Your task to perform on an android device: Open calendar and show me the fourth week of next month Image 0: 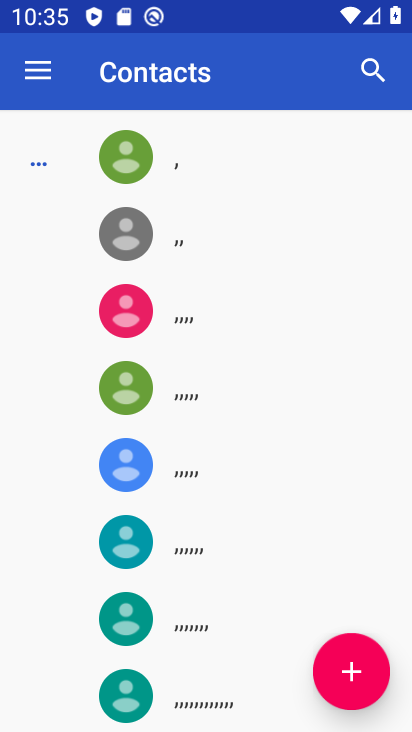
Step 0: press home button
Your task to perform on an android device: Open calendar and show me the fourth week of next month Image 1: 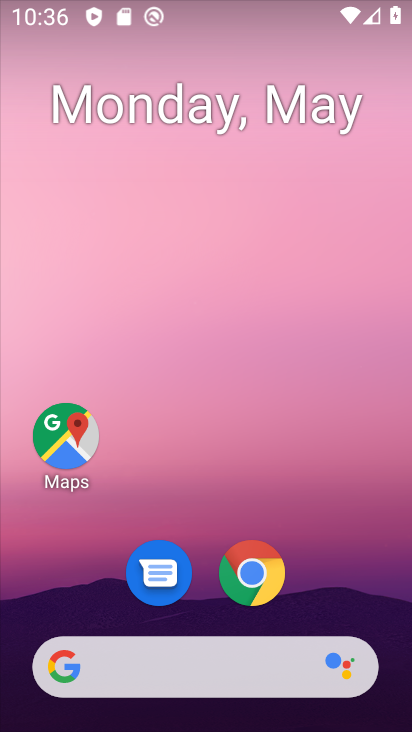
Step 1: drag from (331, 572) to (240, 97)
Your task to perform on an android device: Open calendar and show me the fourth week of next month Image 2: 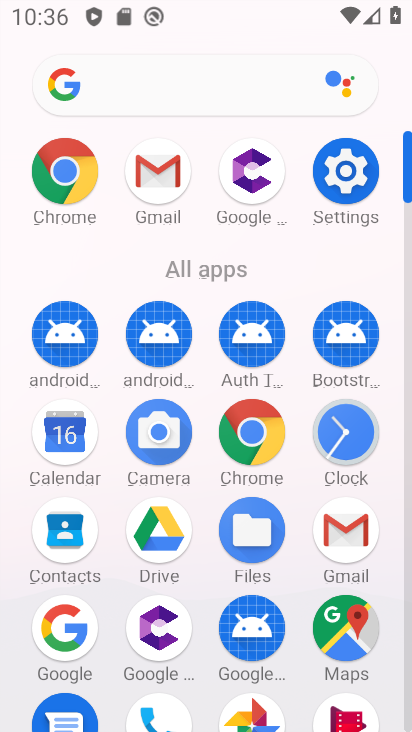
Step 2: click (70, 432)
Your task to perform on an android device: Open calendar and show me the fourth week of next month Image 3: 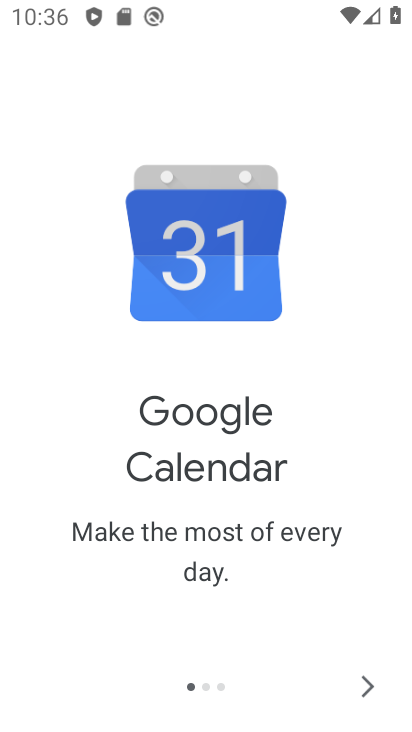
Step 3: click (371, 686)
Your task to perform on an android device: Open calendar and show me the fourth week of next month Image 4: 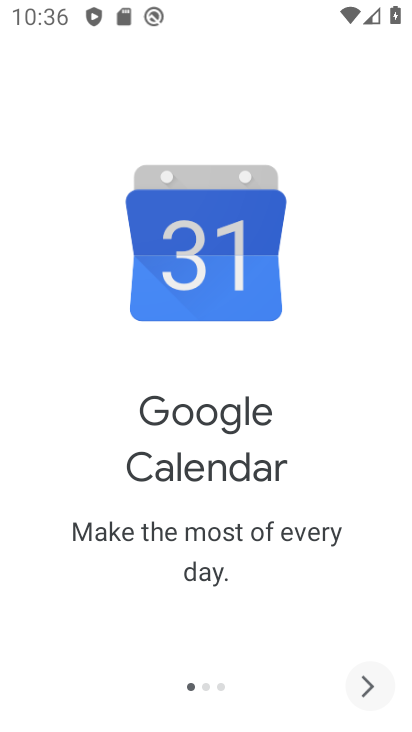
Step 4: click (369, 686)
Your task to perform on an android device: Open calendar and show me the fourth week of next month Image 5: 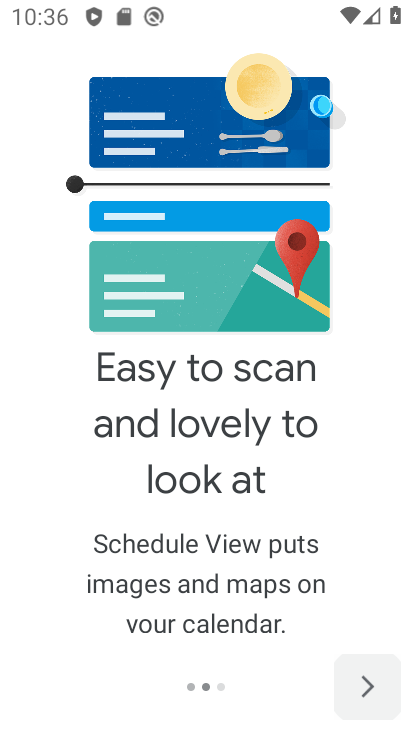
Step 5: click (369, 686)
Your task to perform on an android device: Open calendar and show me the fourth week of next month Image 6: 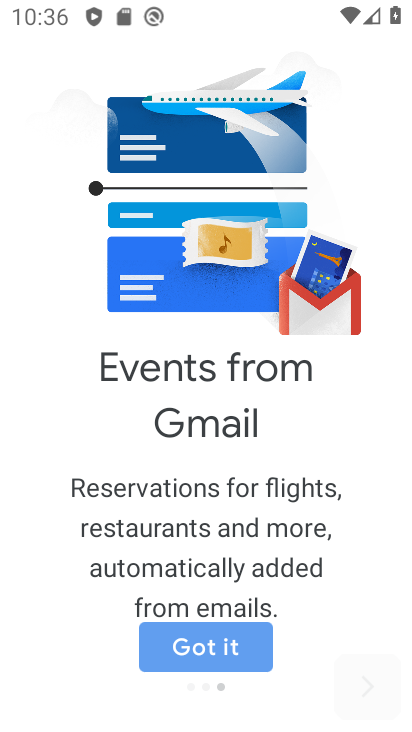
Step 6: click (369, 686)
Your task to perform on an android device: Open calendar and show me the fourth week of next month Image 7: 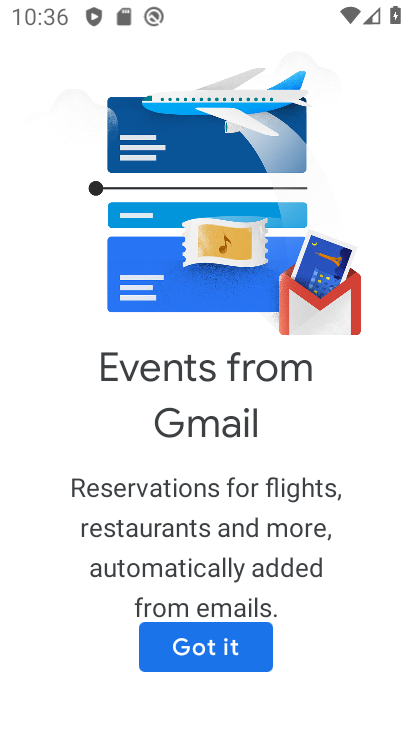
Step 7: click (218, 658)
Your task to perform on an android device: Open calendar and show me the fourth week of next month Image 8: 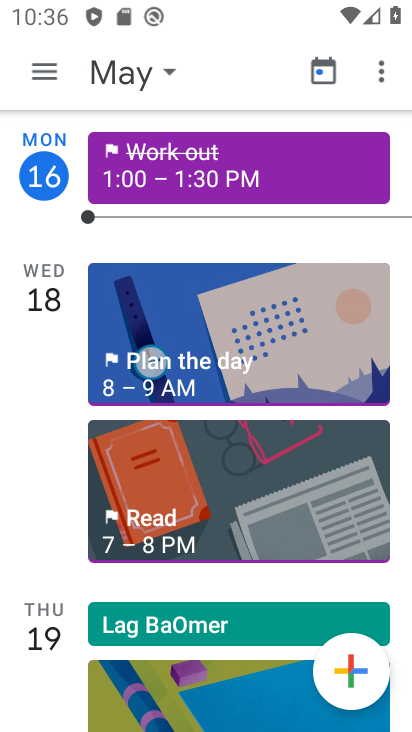
Step 8: click (147, 67)
Your task to perform on an android device: Open calendar and show me the fourth week of next month Image 9: 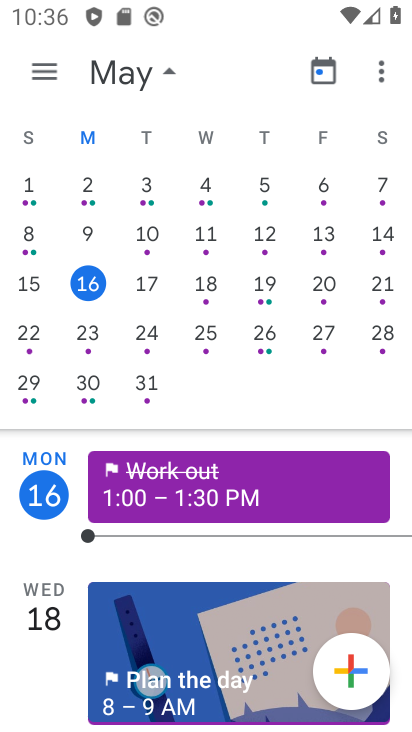
Step 9: drag from (360, 264) to (18, 224)
Your task to perform on an android device: Open calendar and show me the fourth week of next month Image 10: 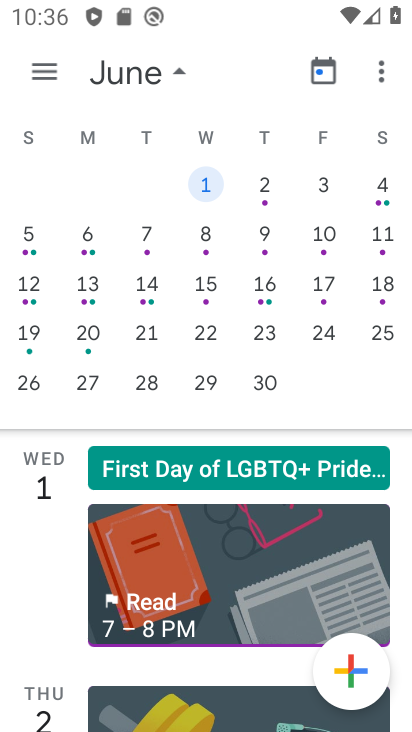
Step 10: click (39, 339)
Your task to perform on an android device: Open calendar and show me the fourth week of next month Image 11: 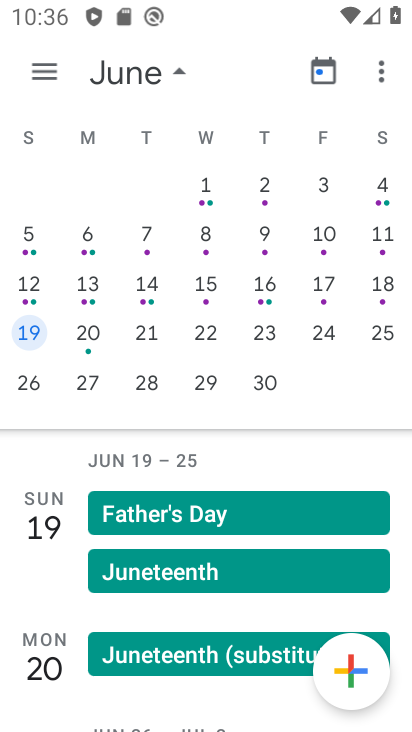
Step 11: click (42, 70)
Your task to perform on an android device: Open calendar and show me the fourth week of next month Image 12: 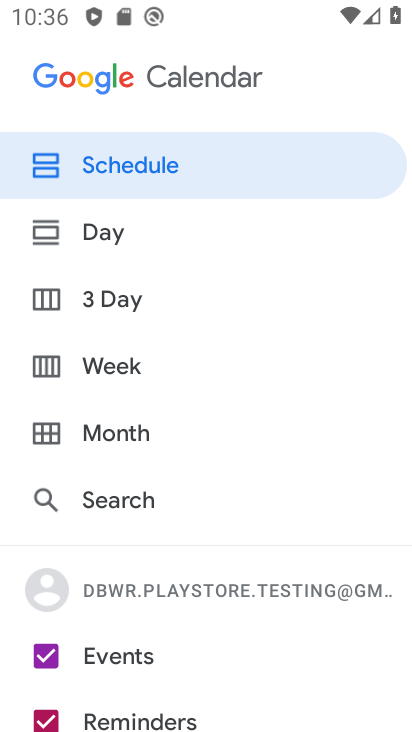
Step 12: click (109, 358)
Your task to perform on an android device: Open calendar and show me the fourth week of next month Image 13: 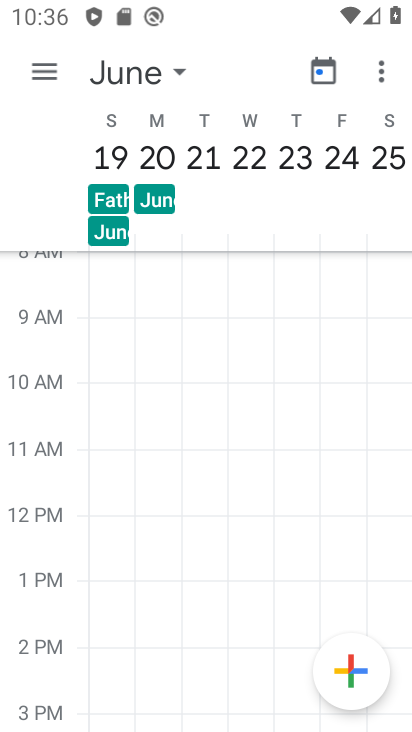
Step 13: click (131, 65)
Your task to perform on an android device: Open calendar and show me the fourth week of next month Image 14: 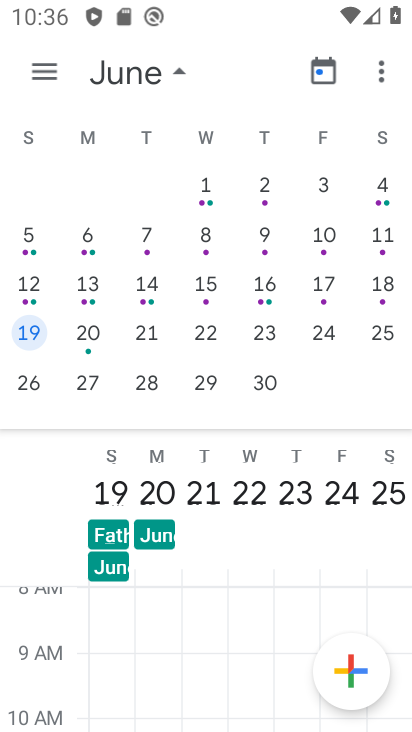
Step 14: task complete